Your task to perform on an android device: Open Chrome and go to settings Image 0: 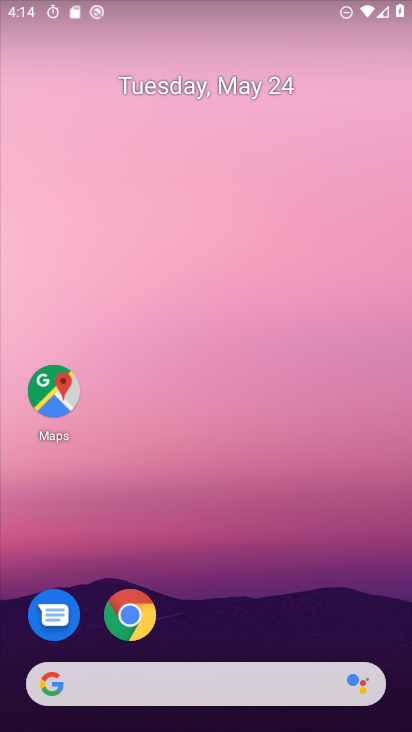
Step 0: drag from (260, 637) to (304, 170)
Your task to perform on an android device: Open Chrome and go to settings Image 1: 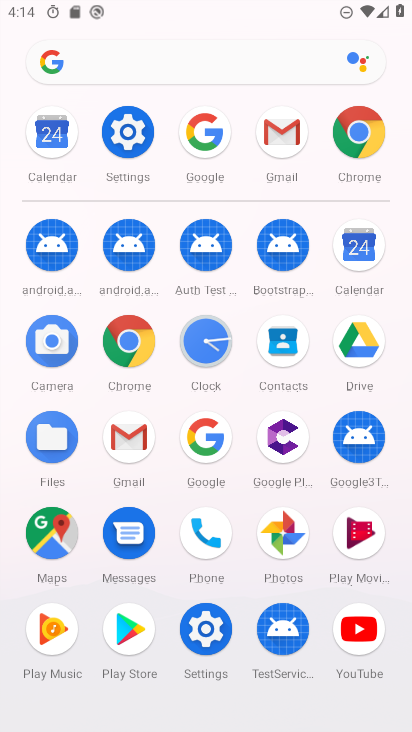
Step 1: click (361, 154)
Your task to perform on an android device: Open Chrome and go to settings Image 2: 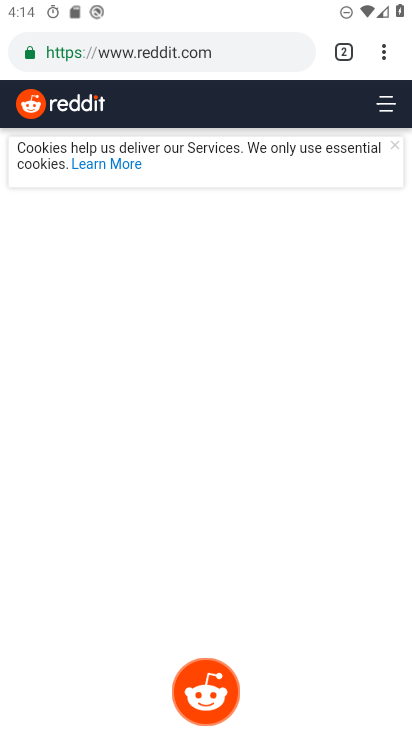
Step 2: click (375, 55)
Your task to perform on an android device: Open Chrome and go to settings Image 3: 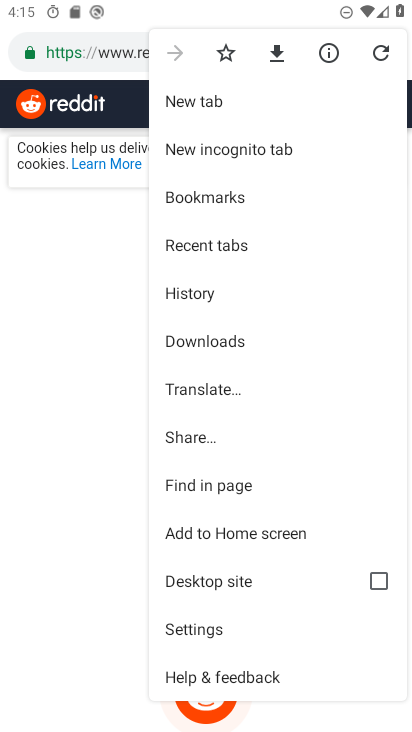
Step 3: click (200, 630)
Your task to perform on an android device: Open Chrome and go to settings Image 4: 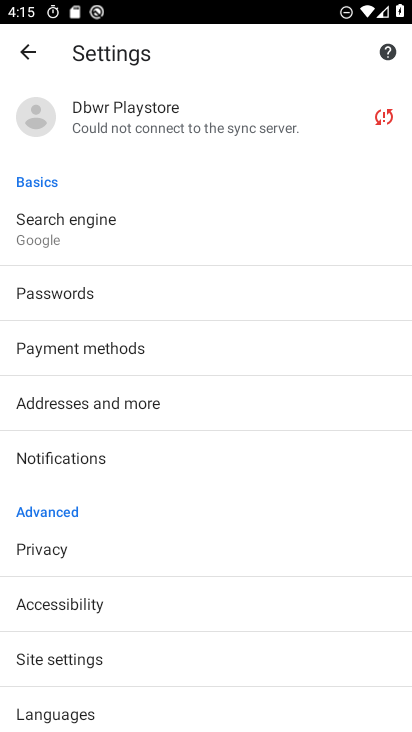
Step 4: task complete